Your task to perform on an android device: see creations saved in the google photos Image 0: 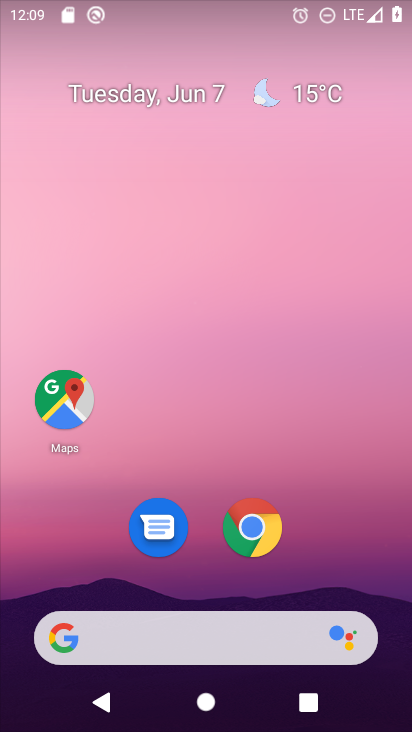
Step 0: drag from (366, 528) to (335, 120)
Your task to perform on an android device: see creations saved in the google photos Image 1: 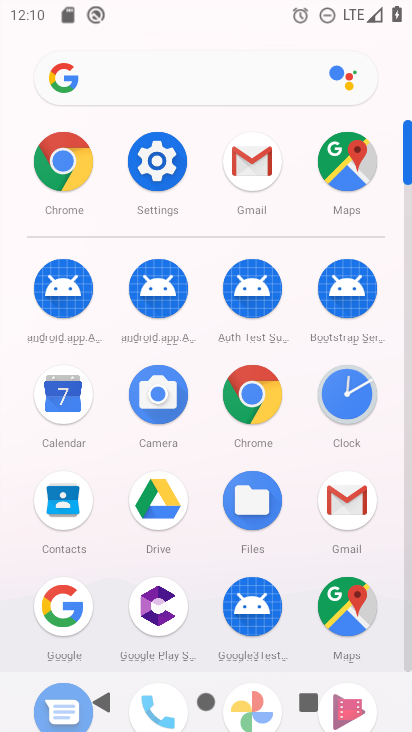
Step 1: drag from (201, 559) to (193, 312)
Your task to perform on an android device: see creations saved in the google photos Image 2: 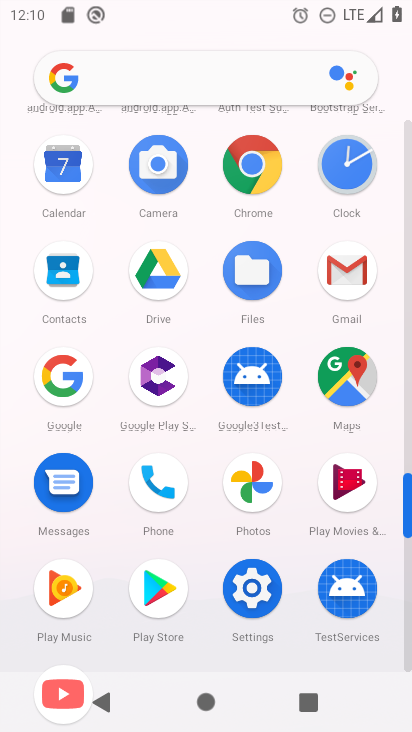
Step 2: click (163, 603)
Your task to perform on an android device: see creations saved in the google photos Image 3: 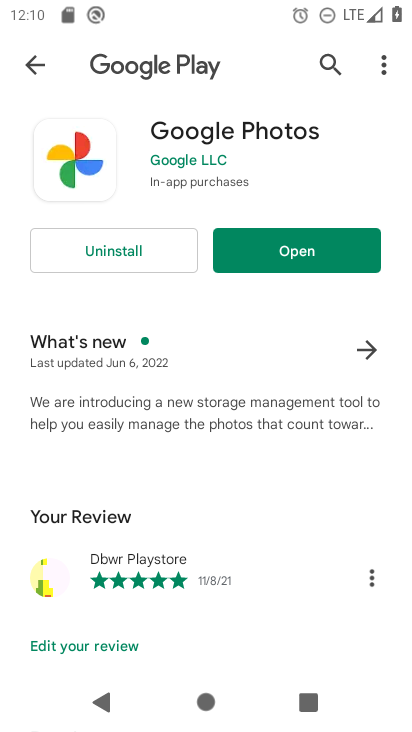
Step 3: press back button
Your task to perform on an android device: see creations saved in the google photos Image 4: 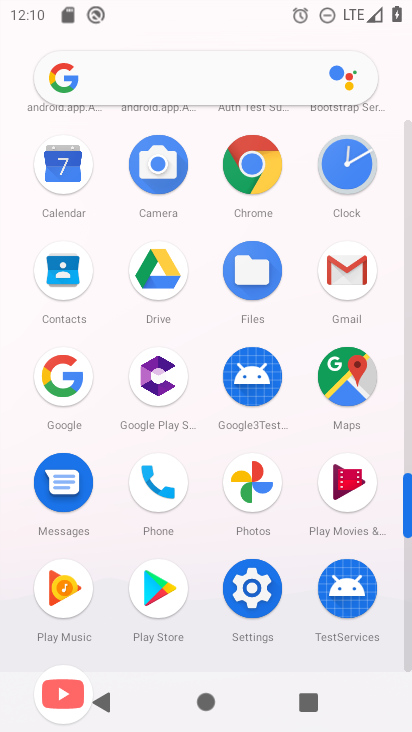
Step 4: click (249, 485)
Your task to perform on an android device: see creations saved in the google photos Image 5: 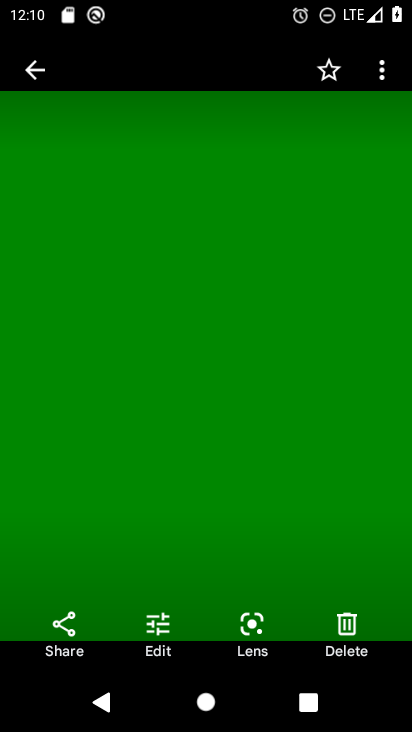
Step 5: click (40, 79)
Your task to perform on an android device: see creations saved in the google photos Image 6: 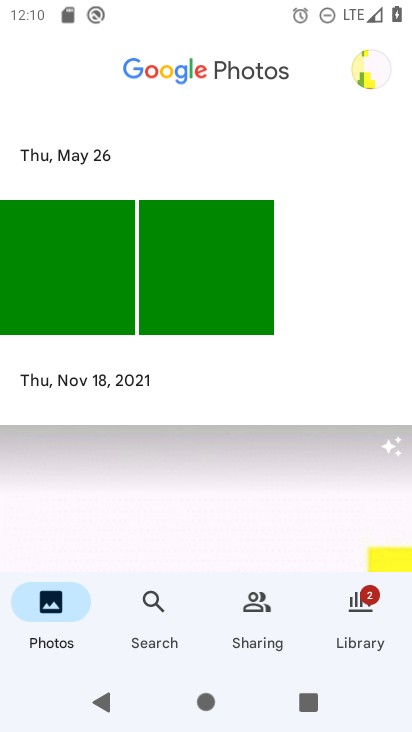
Step 6: click (153, 606)
Your task to perform on an android device: see creations saved in the google photos Image 7: 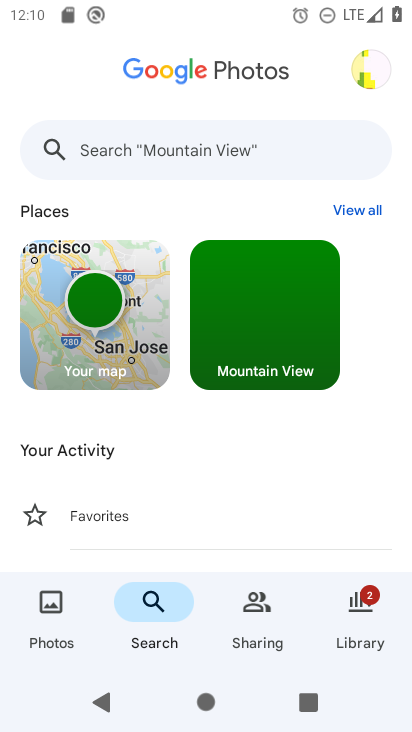
Step 7: drag from (246, 458) to (251, 202)
Your task to perform on an android device: see creations saved in the google photos Image 8: 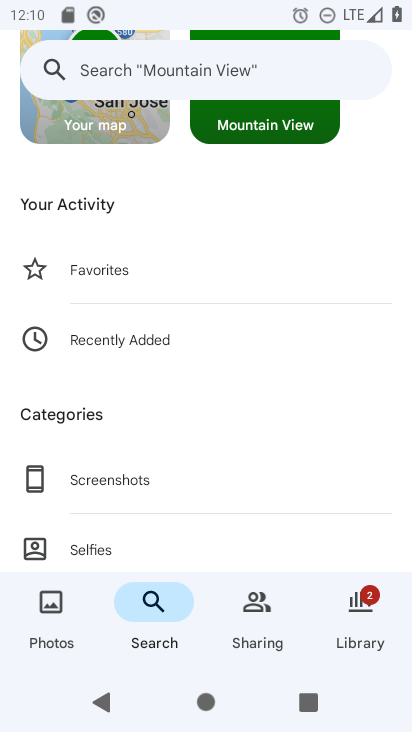
Step 8: drag from (218, 472) to (219, 282)
Your task to perform on an android device: see creations saved in the google photos Image 9: 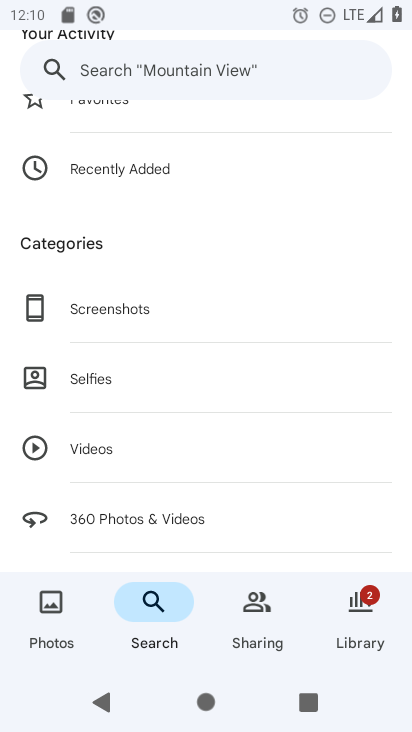
Step 9: drag from (216, 435) to (220, 257)
Your task to perform on an android device: see creations saved in the google photos Image 10: 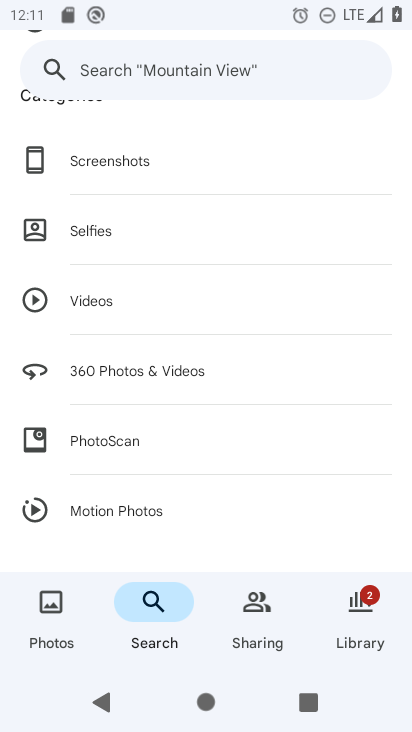
Step 10: drag from (304, 475) to (305, 258)
Your task to perform on an android device: see creations saved in the google photos Image 11: 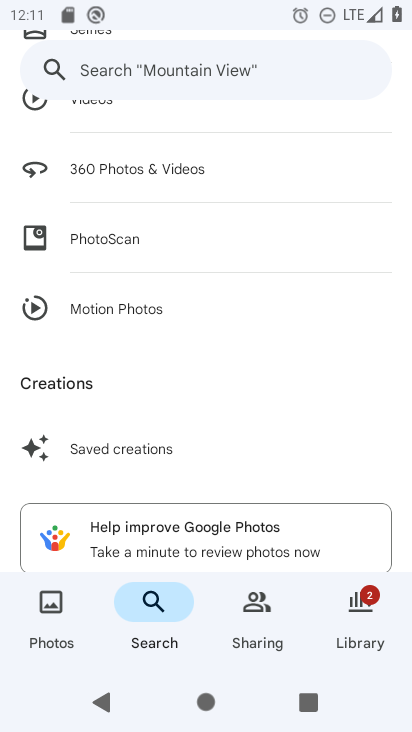
Step 11: drag from (223, 457) to (240, 247)
Your task to perform on an android device: see creations saved in the google photos Image 12: 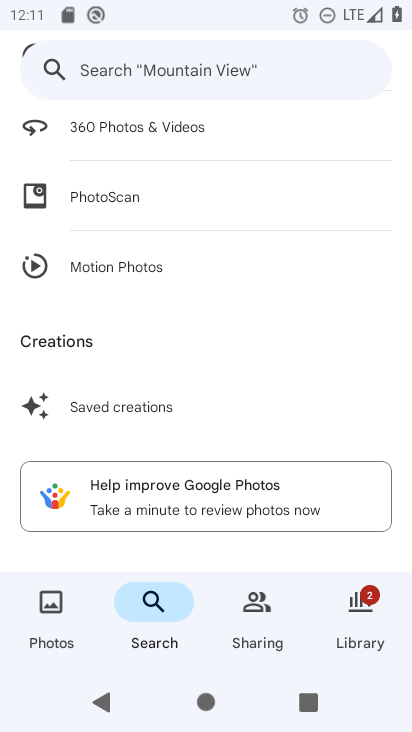
Step 12: click (145, 406)
Your task to perform on an android device: see creations saved in the google photos Image 13: 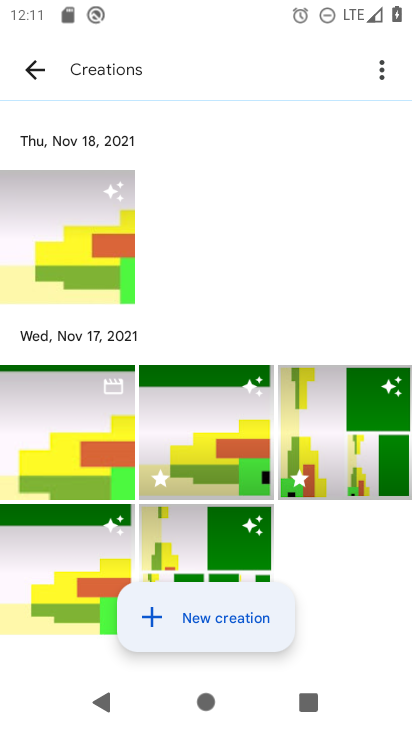
Step 13: task complete